Your task to perform on an android device: change the upload size in google photos Image 0: 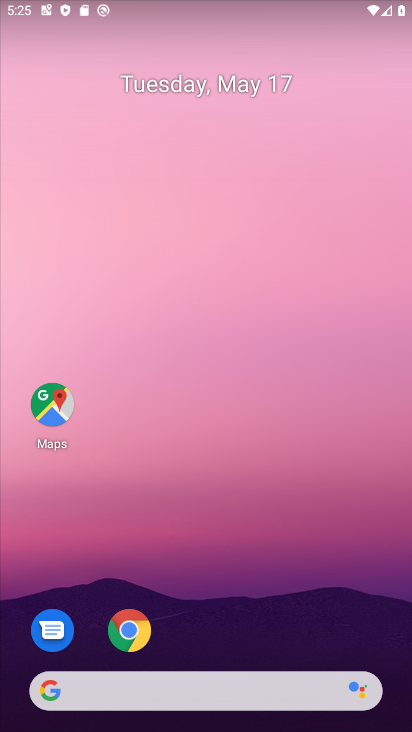
Step 0: drag from (315, 652) to (291, 128)
Your task to perform on an android device: change the upload size in google photos Image 1: 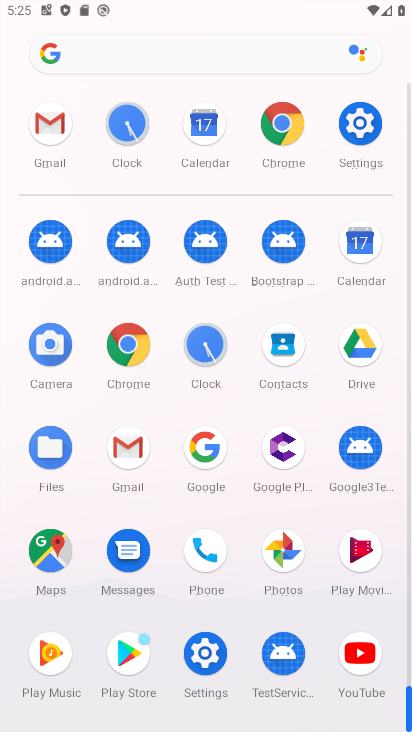
Step 1: click (280, 541)
Your task to perform on an android device: change the upload size in google photos Image 2: 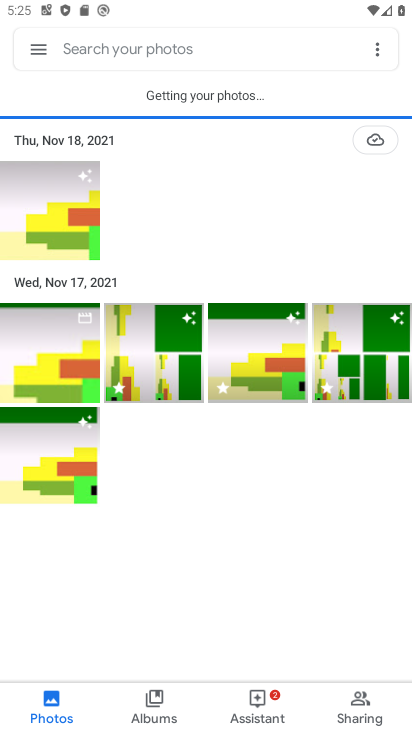
Step 2: click (45, 53)
Your task to perform on an android device: change the upload size in google photos Image 3: 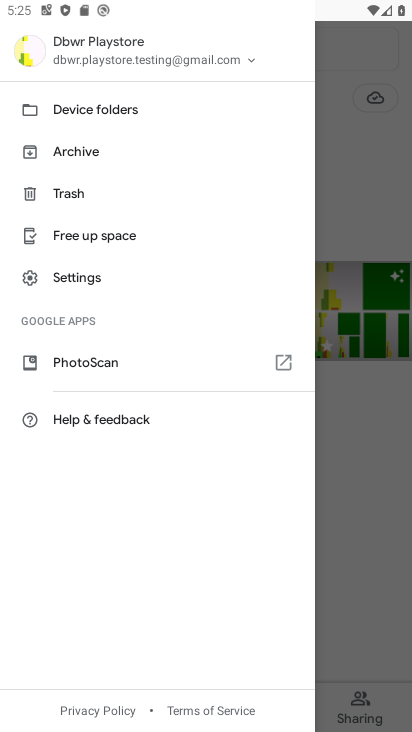
Step 3: click (87, 273)
Your task to perform on an android device: change the upload size in google photos Image 4: 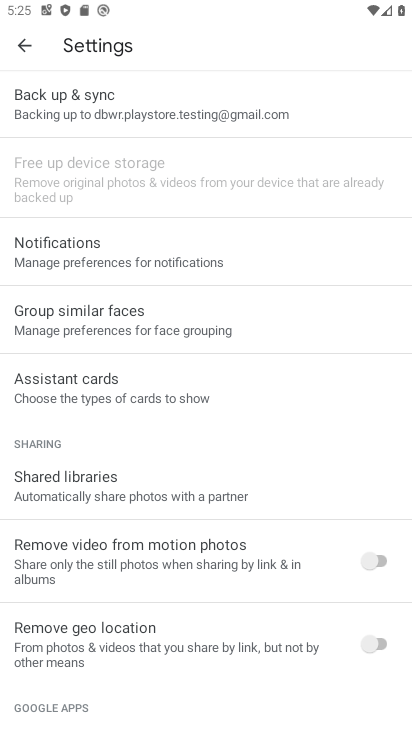
Step 4: click (176, 121)
Your task to perform on an android device: change the upload size in google photos Image 5: 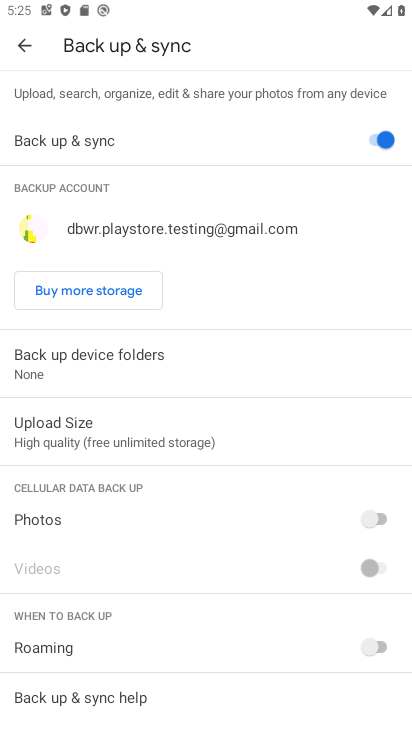
Step 5: click (122, 434)
Your task to perform on an android device: change the upload size in google photos Image 6: 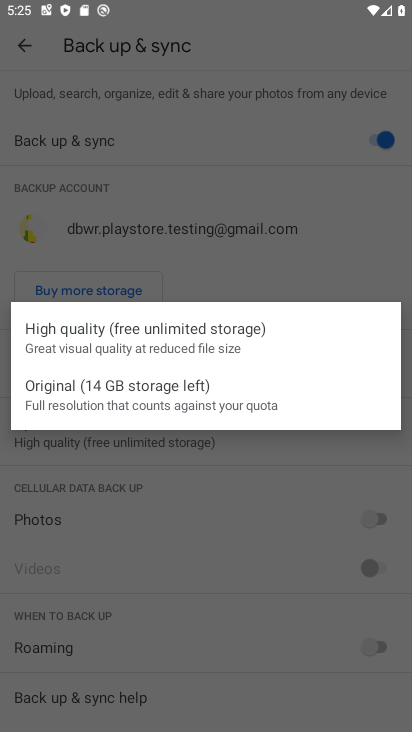
Step 6: click (139, 390)
Your task to perform on an android device: change the upload size in google photos Image 7: 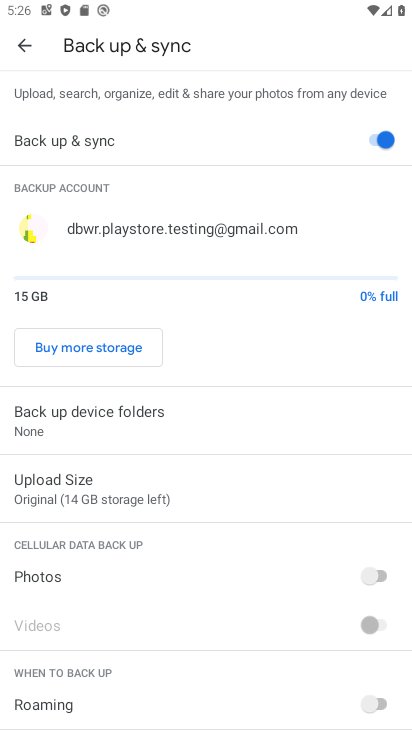
Step 7: task complete